Your task to perform on an android device: delete browsing data in the chrome app Image 0: 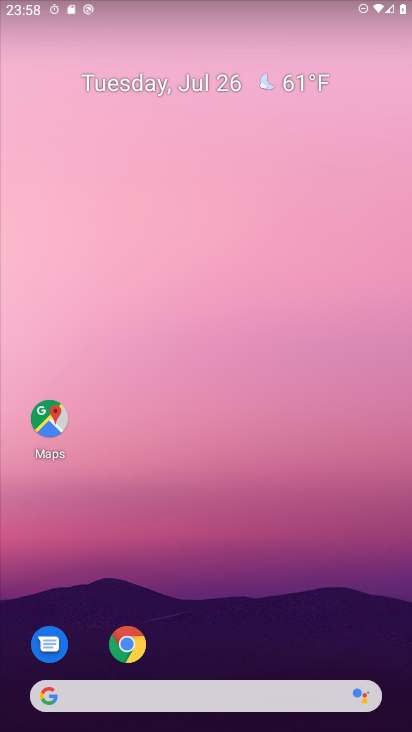
Step 0: click (128, 645)
Your task to perform on an android device: delete browsing data in the chrome app Image 1: 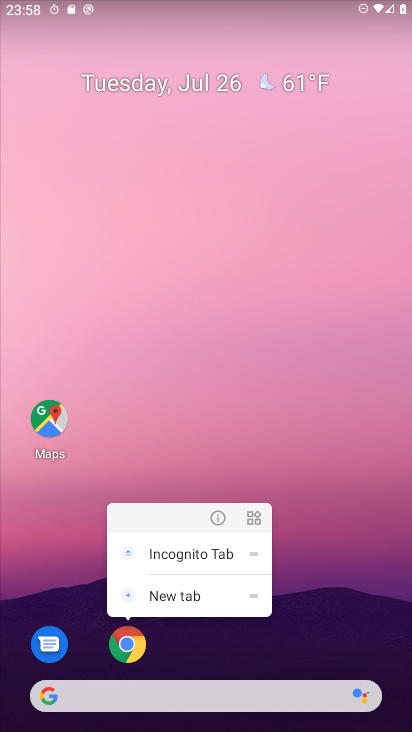
Step 1: click (139, 650)
Your task to perform on an android device: delete browsing data in the chrome app Image 2: 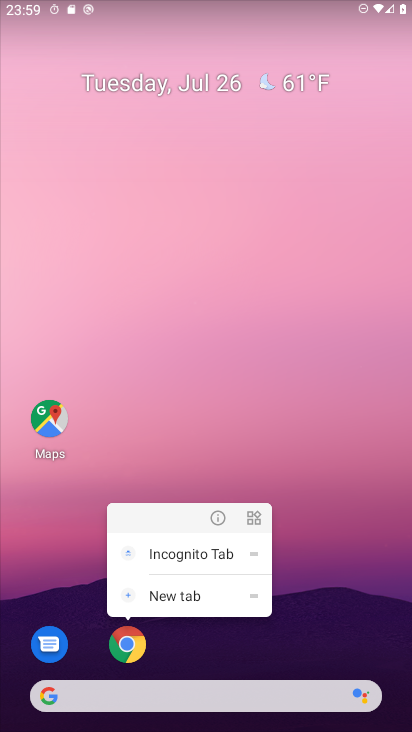
Step 2: click (136, 649)
Your task to perform on an android device: delete browsing data in the chrome app Image 3: 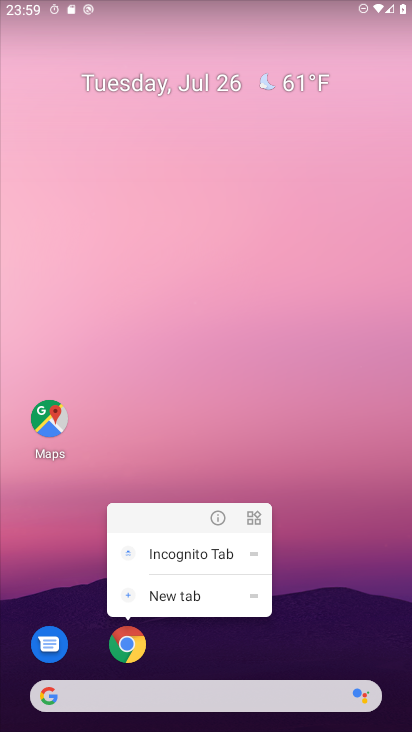
Step 3: click (134, 652)
Your task to perform on an android device: delete browsing data in the chrome app Image 4: 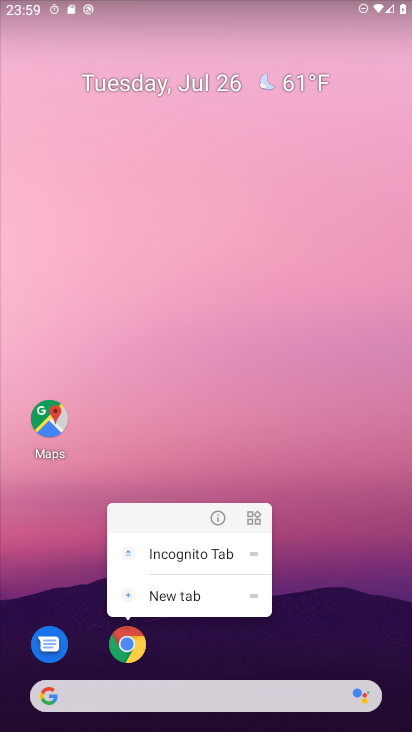
Step 4: click (134, 652)
Your task to perform on an android device: delete browsing data in the chrome app Image 5: 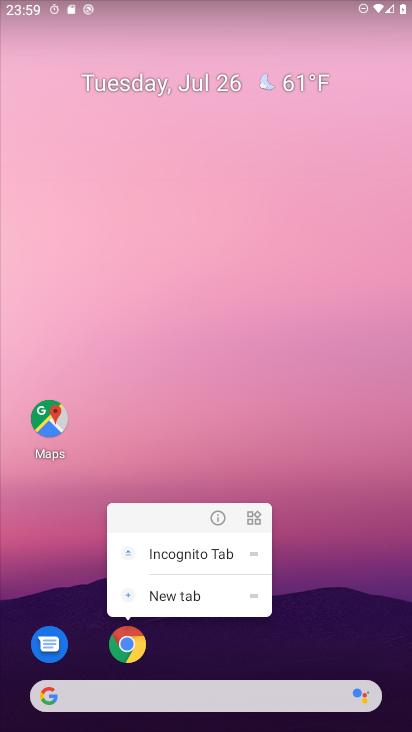
Step 5: click (134, 652)
Your task to perform on an android device: delete browsing data in the chrome app Image 6: 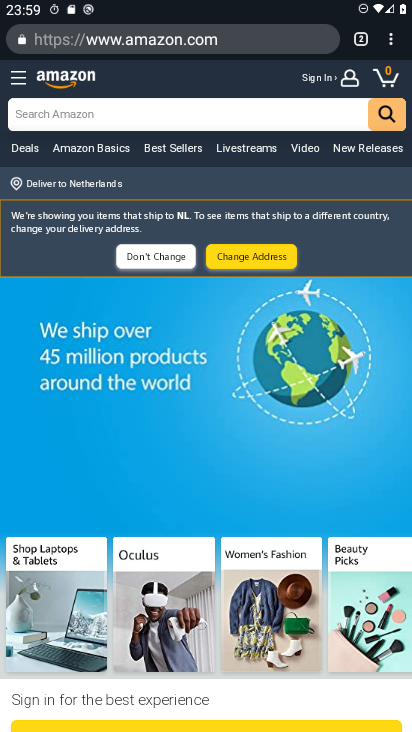
Step 6: drag from (395, 35) to (281, 477)
Your task to perform on an android device: delete browsing data in the chrome app Image 7: 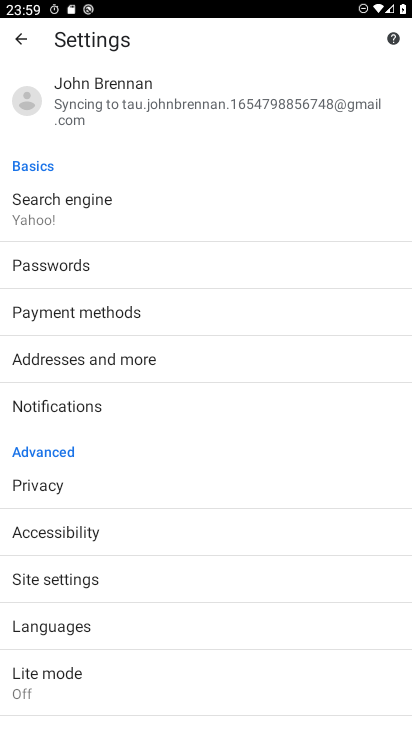
Step 7: drag from (179, 532) to (177, 300)
Your task to perform on an android device: delete browsing data in the chrome app Image 8: 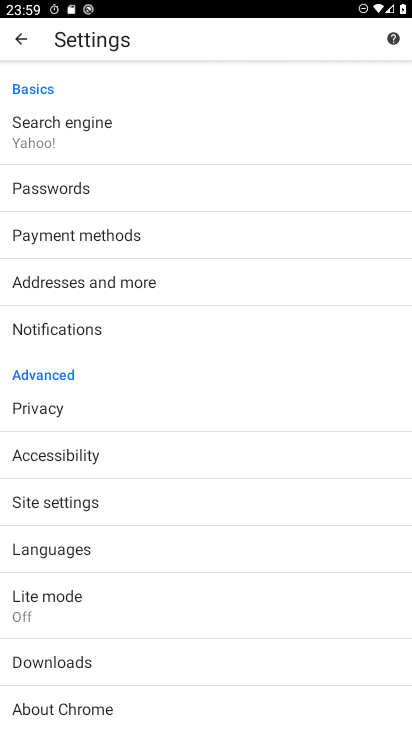
Step 8: click (48, 412)
Your task to perform on an android device: delete browsing data in the chrome app Image 9: 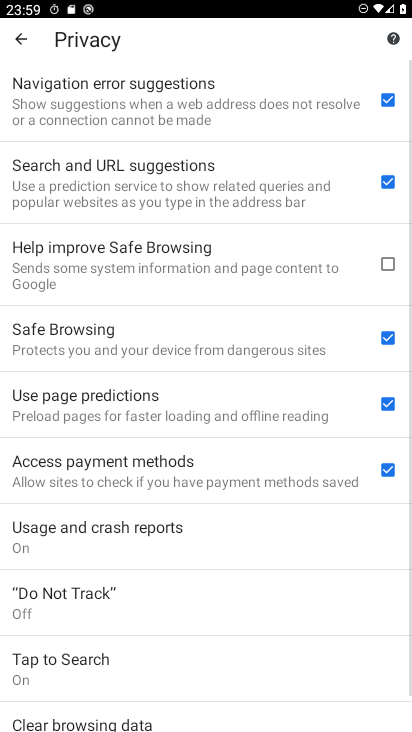
Step 9: drag from (182, 584) to (179, 317)
Your task to perform on an android device: delete browsing data in the chrome app Image 10: 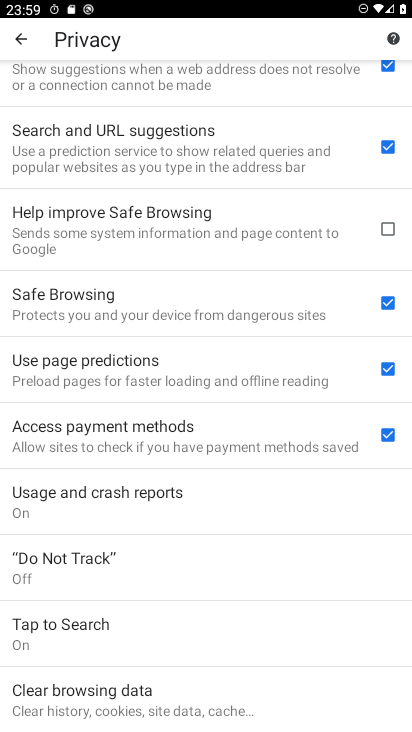
Step 10: click (86, 695)
Your task to perform on an android device: delete browsing data in the chrome app Image 11: 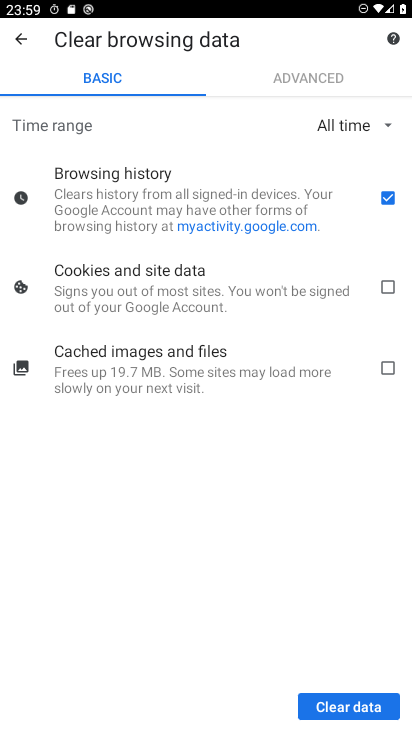
Step 11: click (330, 710)
Your task to perform on an android device: delete browsing data in the chrome app Image 12: 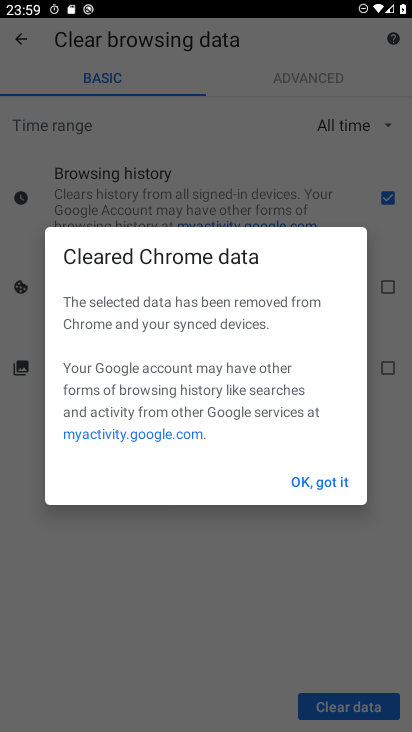
Step 12: click (309, 485)
Your task to perform on an android device: delete browsing data in the chrome app Image 13: 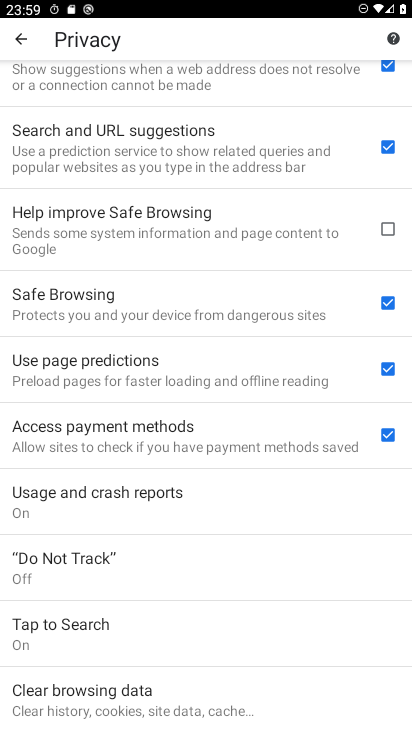
Step 13: task complete